Your task to perform on an android device: open app "Google Keep" (install if not already installed) Image 0: 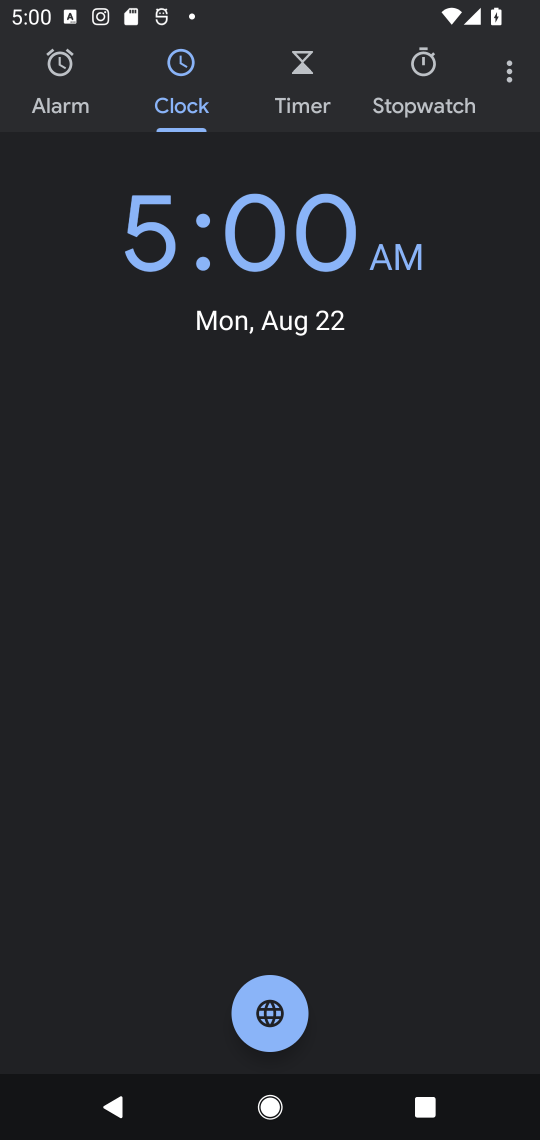
Step 0: press home button
Your task to perform on an android device: open app "Google Keep" (install if not already installed) Image 1: 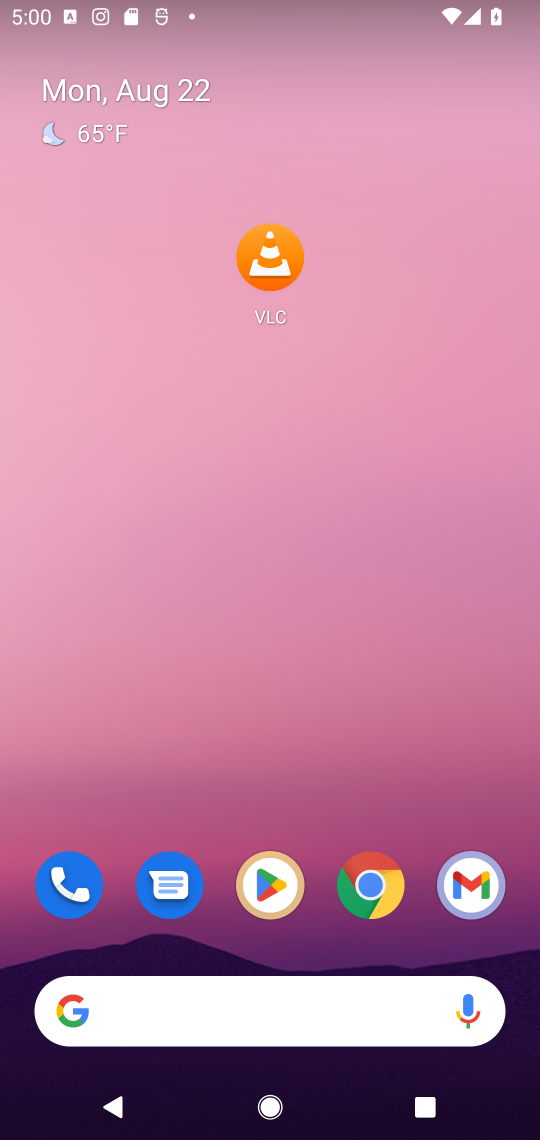
Step 1: click (264, 878)
Your task to perform on an android device: open app "Google Keep" (install if not already installed) Image 2: 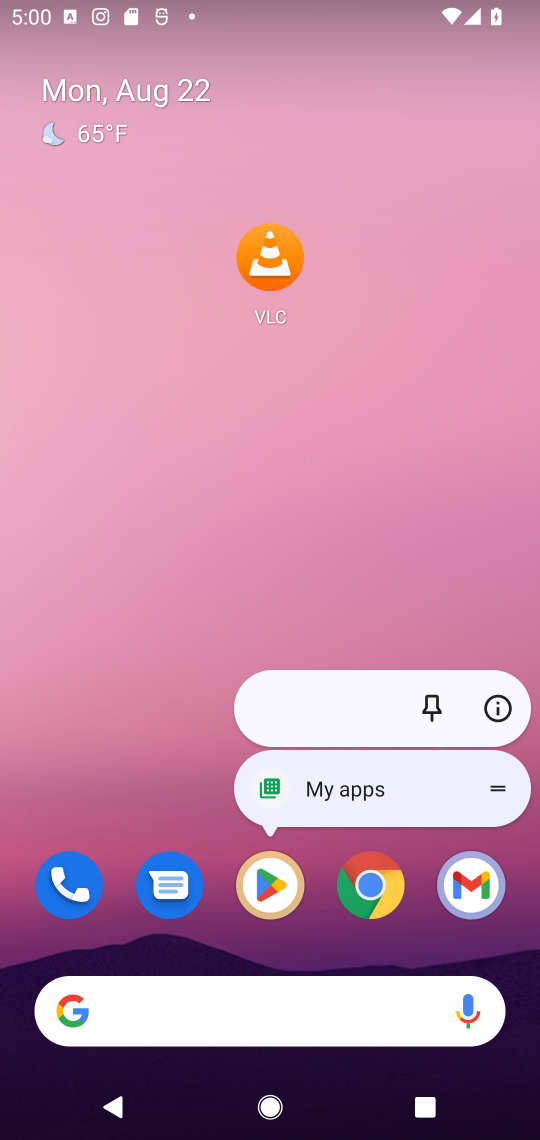
Step 2: click (264, 877)
Your task to perform on an android device: open app "Google Keep" (install if not already installed) Image 3: 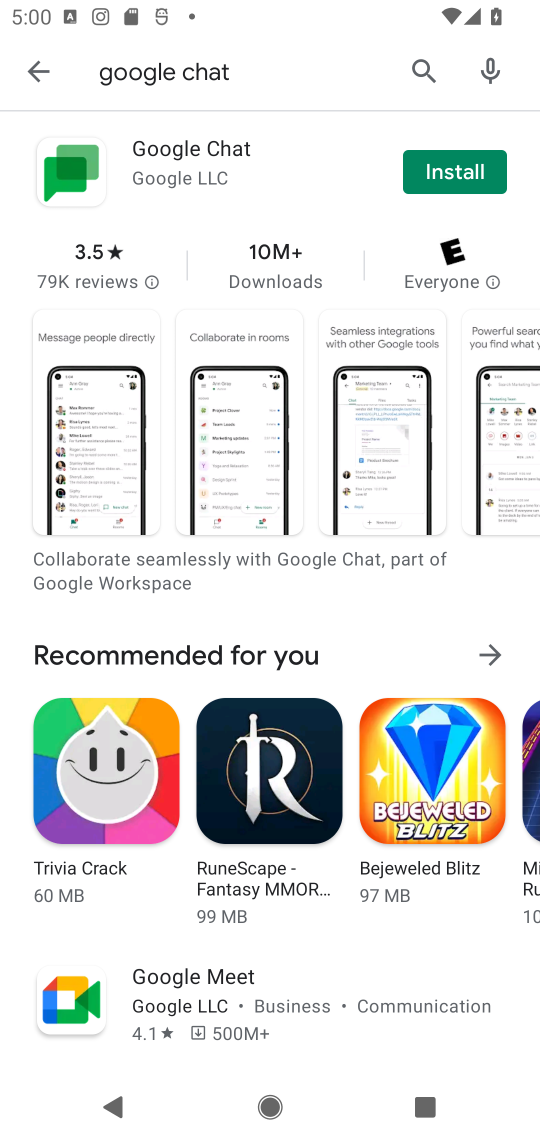
Step 3: click (414, 60)
Your task to perform on an android device: open app "Google Keep" (install if not already installed) Image 4: 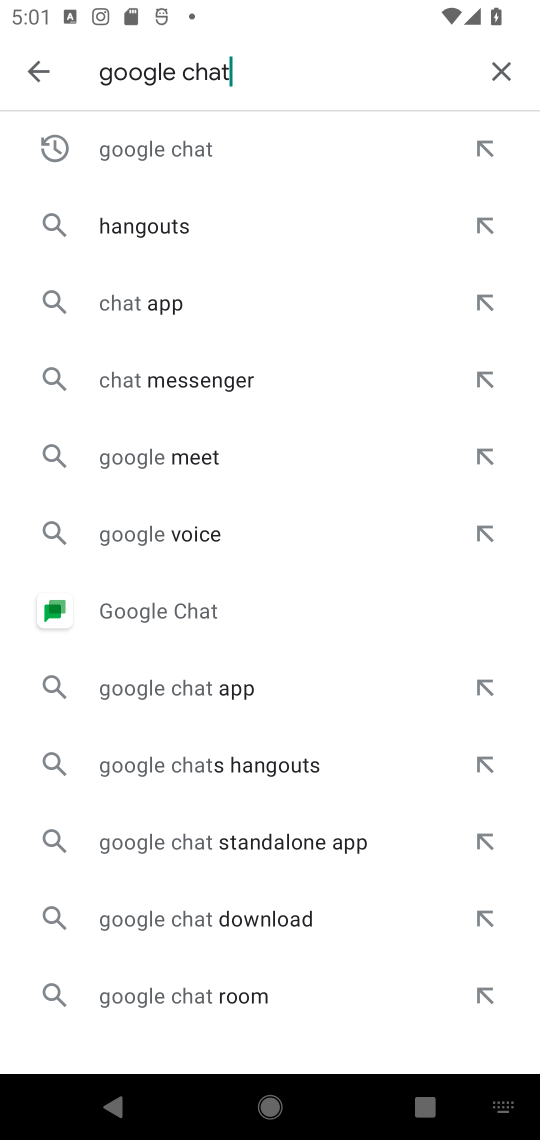
Step 4: click (495, 62)
Your task to perform on an android device: open app "Google Keep" (install if not already installed) Image 5: 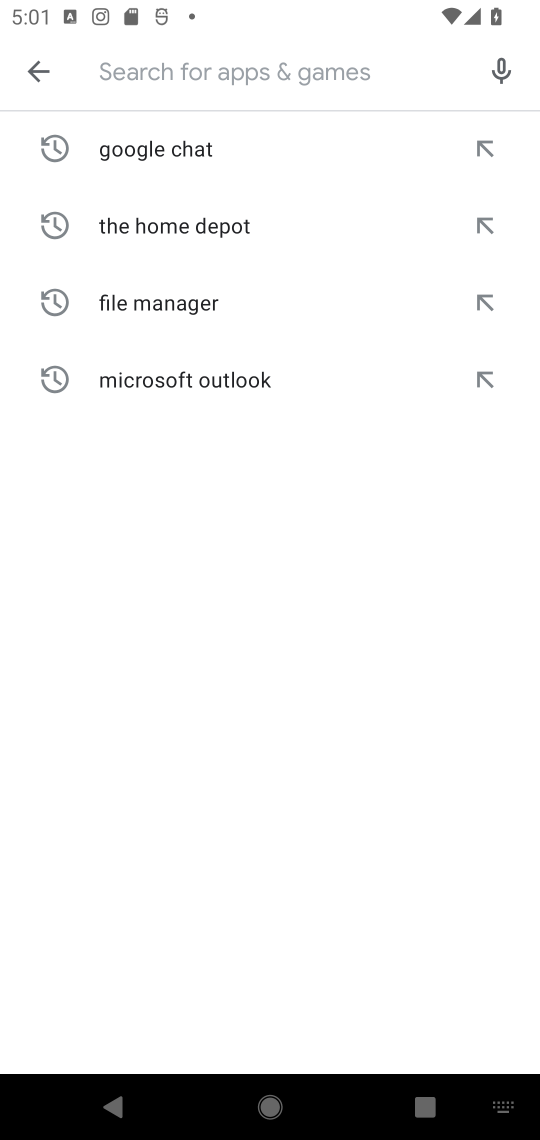
Step 5: type "Google Keep"
Your task to perform on an android device: open app "Google Keep" (install if not already installed) Image 6: 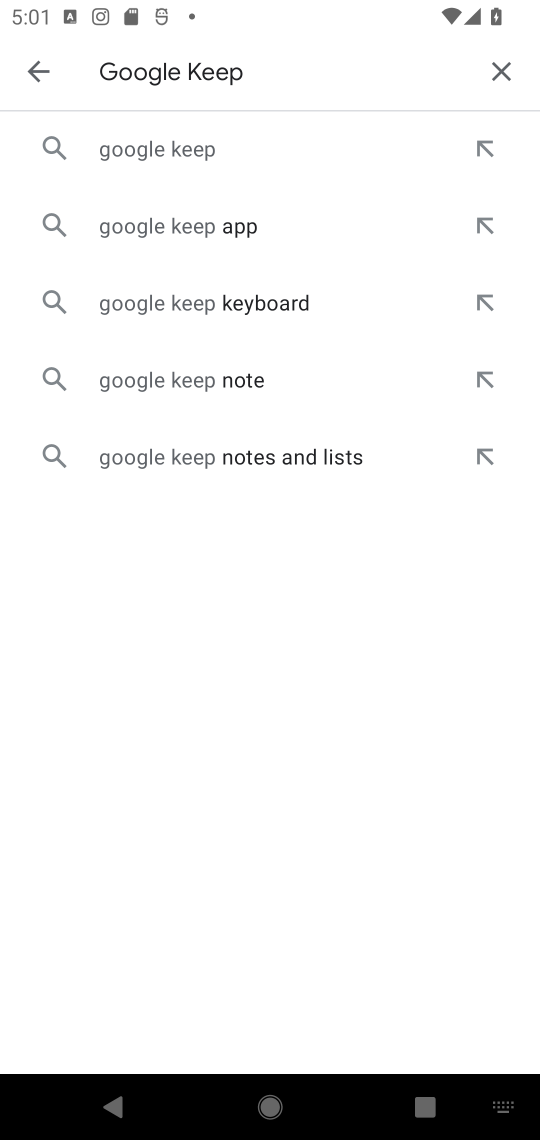
Step 6: click (237, 141)
Your task to perform on an android device: open app "Google Keep" (install if not already installed) Image 7: 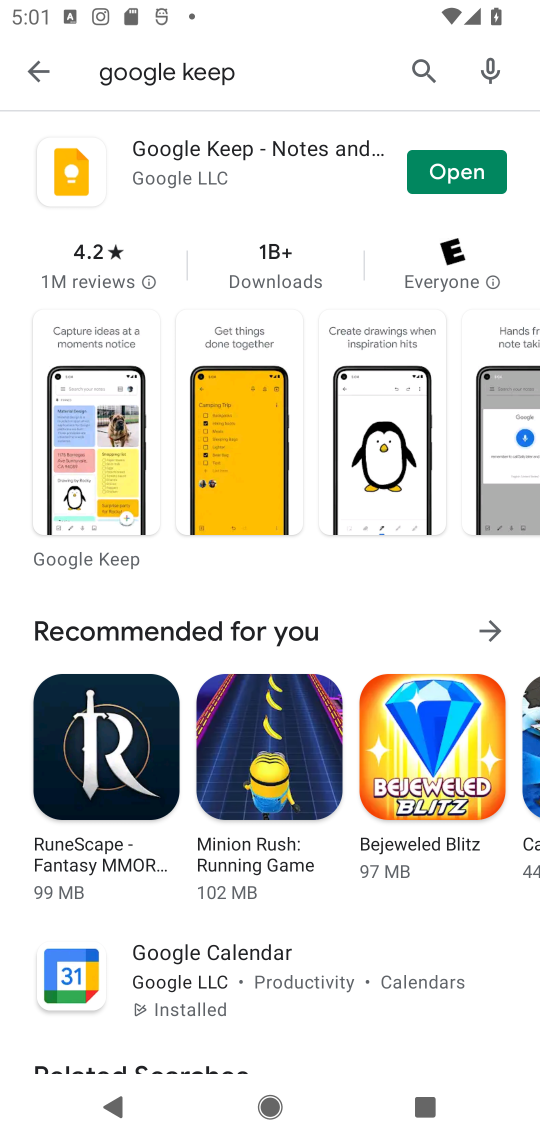
Step 7: click (465, 159)
Your task to perform on an android device: open app "Google Keep" (install if not already installed) Image 8: 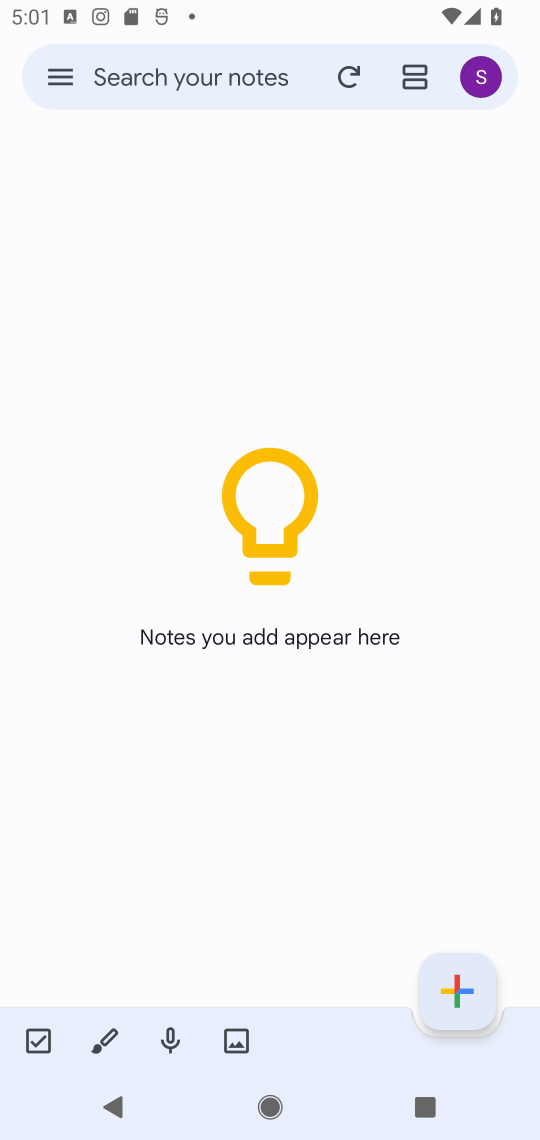
Step 8: task complete